Your task to perform on an android device: Go to Android settings Image 0: 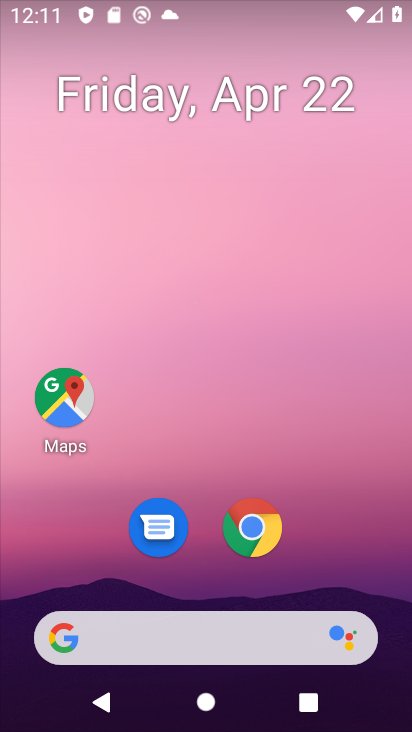
Step 0: drag from (220, 585) to (234, 72)
Your task to perform on an android device: Go to Android settings Image 1: 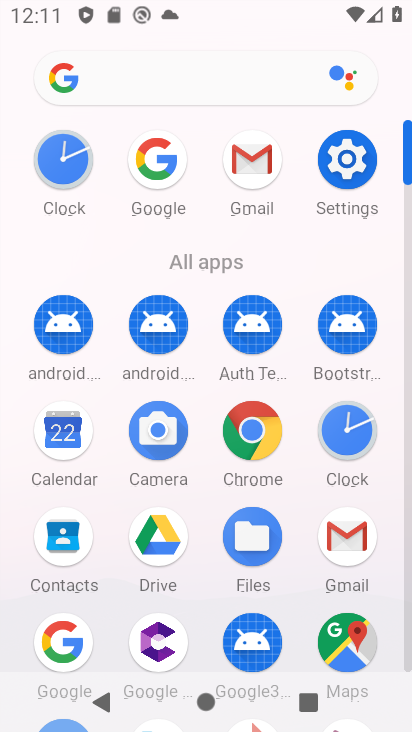
Step 1: click (328, 147)
Your task to perform on an android device: Go to Android settings Image 2: 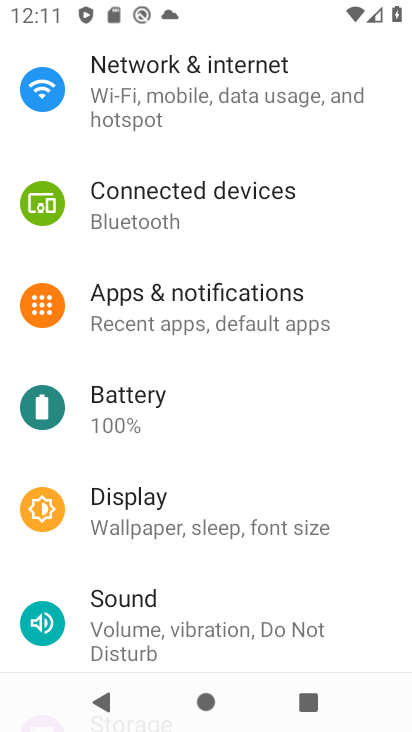
Step 2: task complete